Your task to perform on an android device: open sync settings in chrome Image 0: 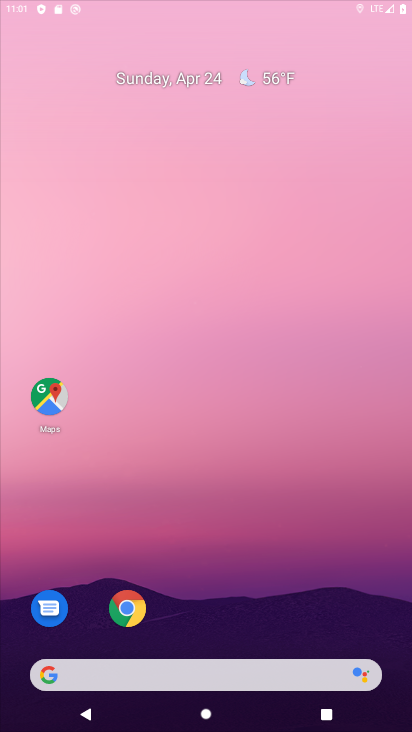
Step 0: drag from (204, 643) to (202, 161)
Your task to perform on an android device: open sync settings in chrome Image 1: 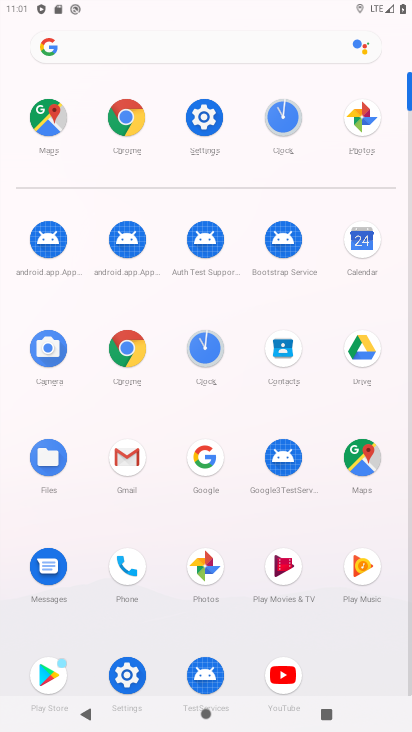
Step 1: click (125, 129)
Your task to perform on an android device: open sync settings in chrome Image 2: 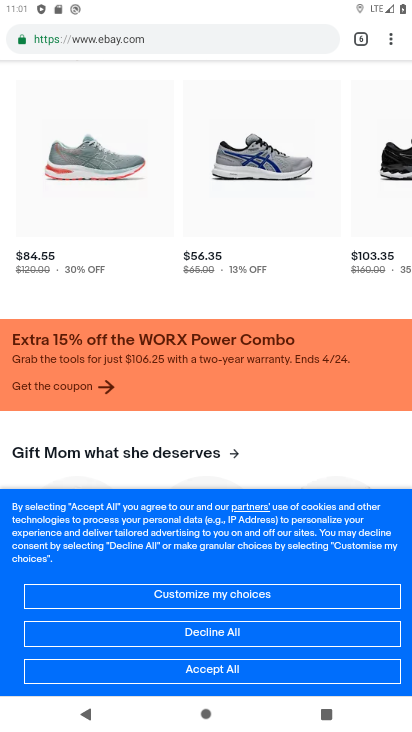
Step 2: drag from (242, 108) to (214, 425)
Your task to perform on an android device: open sync settings in chrome Image 3: 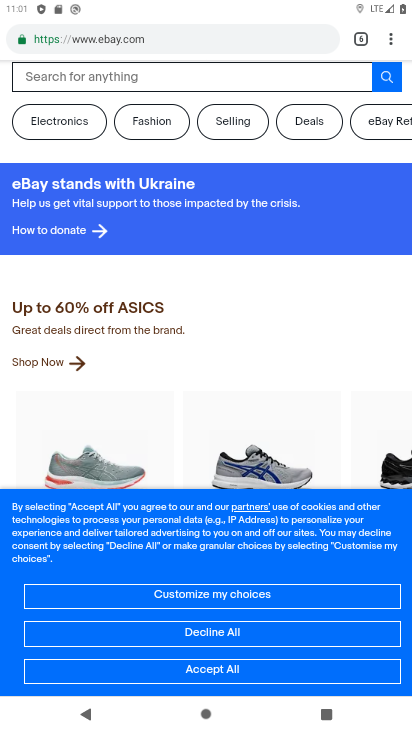
Step 3: drag from (387, 38) to (251, 513)
Your task to perform on an android device: open sync settings in chrome Image 4: 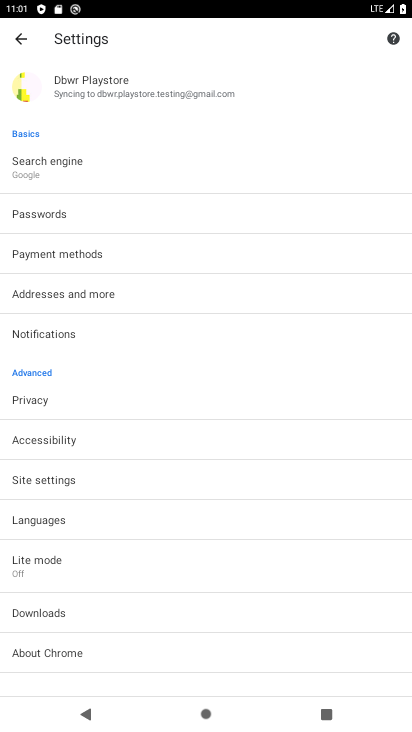
Step 4: click (120, 85)
Your task to perform on an android device: open sync settings in chrome Image 5: 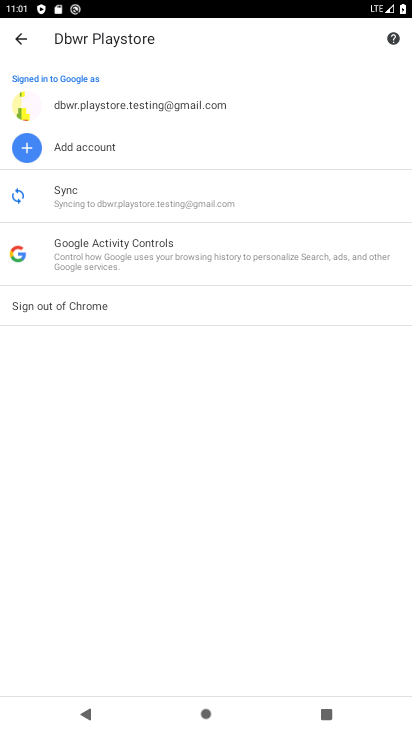
Step 5: task complete